Your task to perform on an android device: empty trash in google photos Image 0: 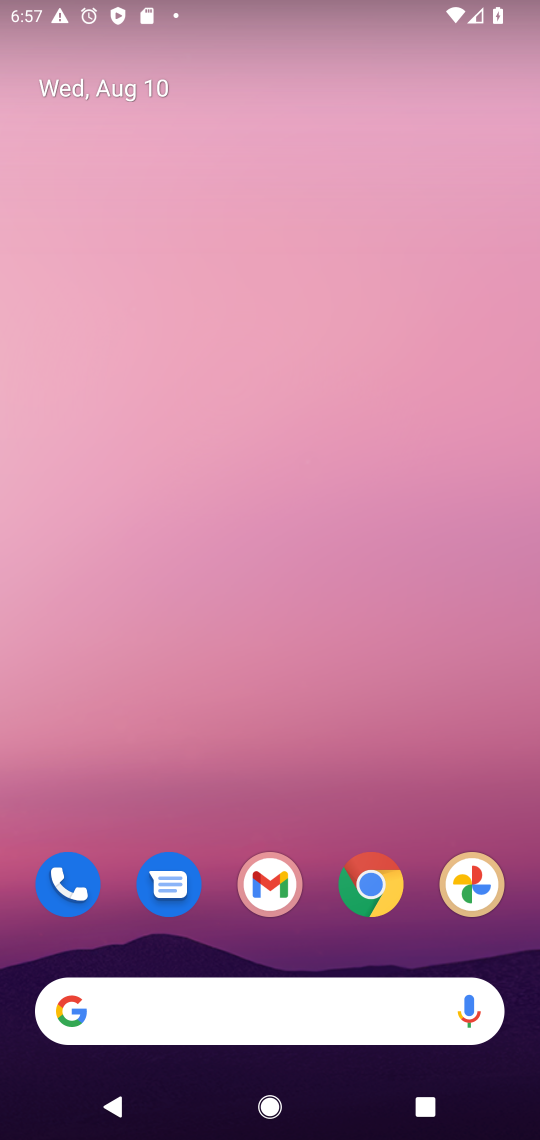
Step 0: drag from (33, 1087) to (334, 179)
Your task to perform on an android device: empty trash in google photos Image 1: 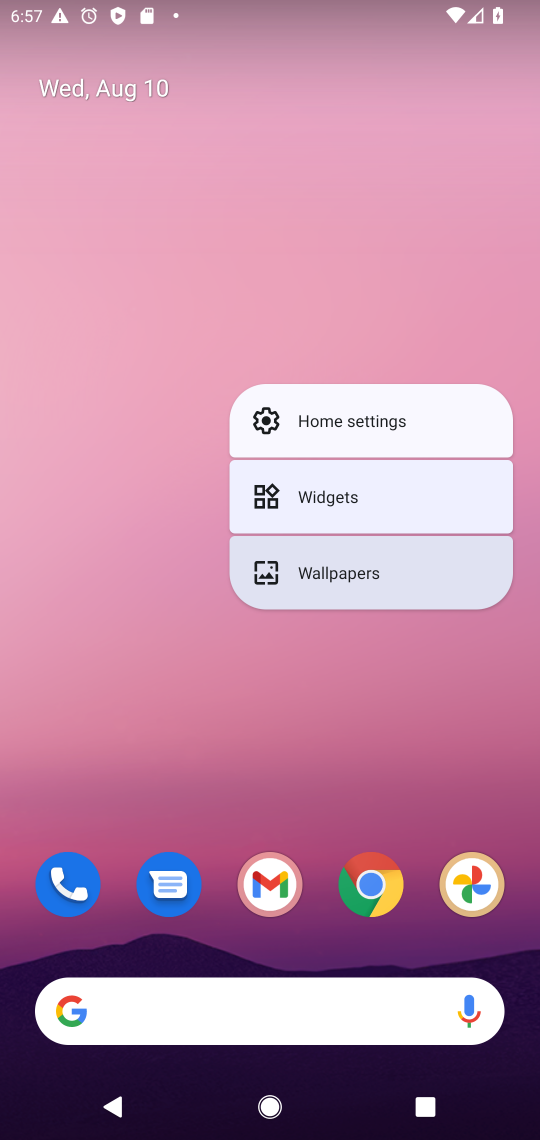
Step 1: click (484, 877)
Your task to perform on an android device: empty trash in google photos Image 2: 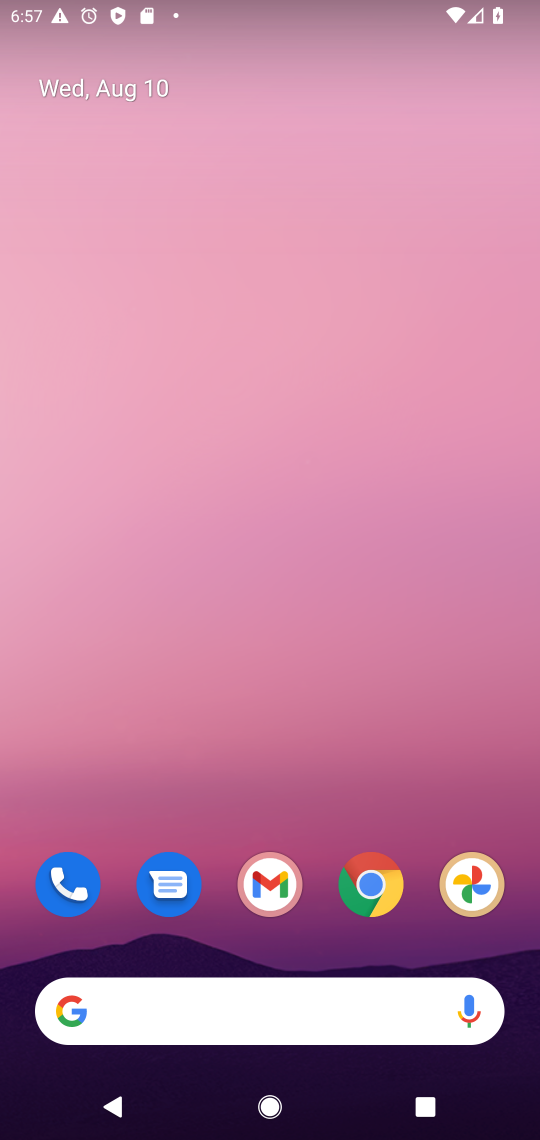
Step 2: click (484, 893)
Your task to perform on an android device: empty trash in google photos Image 3: 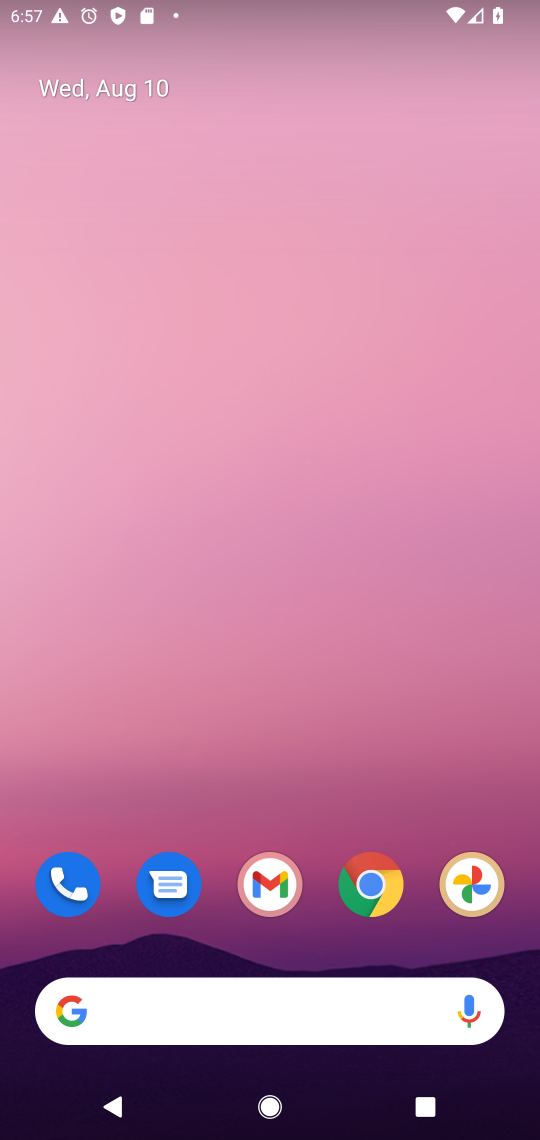
Step 3: click (484, 893)
Your task to perform on an android device: empty trash in google photos Image 4: 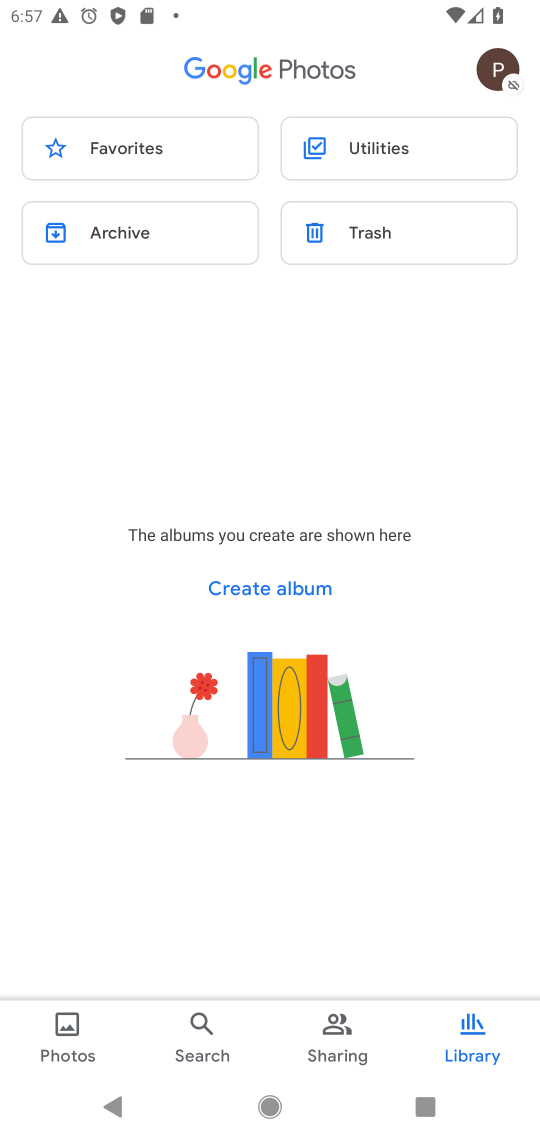
Step 4: click (349, 247)
Your task to perform on an android device: empty trash in google photos Image 5: 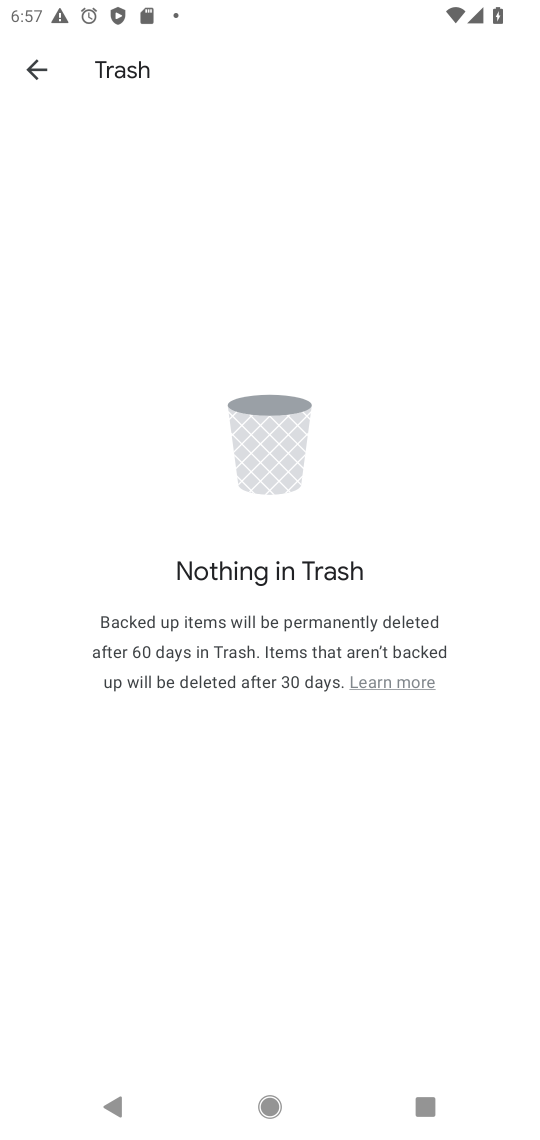
Step 5: task complete